Your task to perform on an android device: View the shopping cart on amazon.com. Add bose soundlink to the cart on amazon.com Image 0: 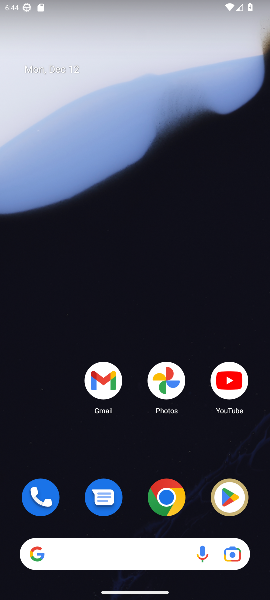
Step 0: press home button
Your task to perform on an android device: View the shopping cart on amazon.com. Add bose soundlink to the cart on amazon.com Image 1: 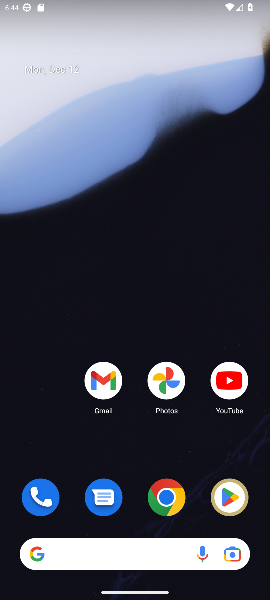
Step 1: drag from (72, 434) to (68, 58)
Your task to perform on an android device: View the shopping cart on amazon.com. Add bose soundlink to the cart on amazon.com Image 2: 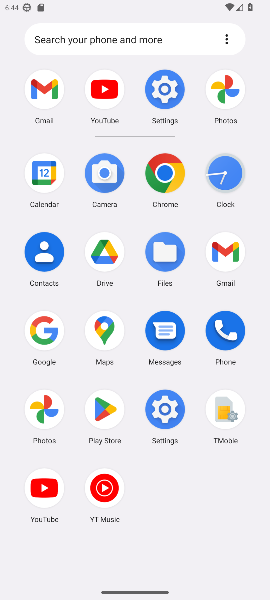
Step 2: click (40, 326)
Your task to perform on an android device: View the shopping cart on amazon.com. Add bose soundlink to the cart on amazon.com Image 3: 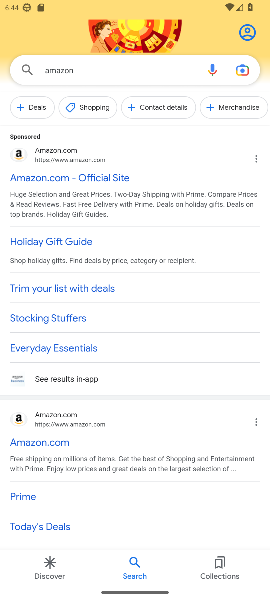
Step 3: click (123, 70)
Your task to perform on an android device: View the shopping cart on amazon.com. Add bose soundlink to the cart on amazon.com Image 4: 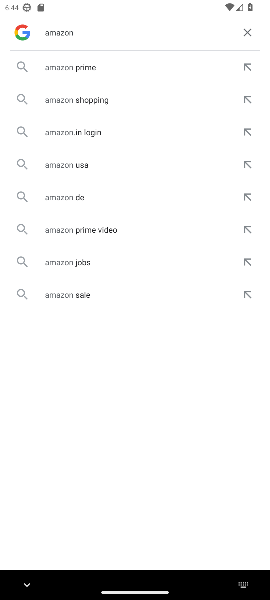
Step 4: click (247, 28)
Your task to perform on an android device: View the shopping cart on amazon.com. Add bose soundlink to the cart on amazon.com Image 5: 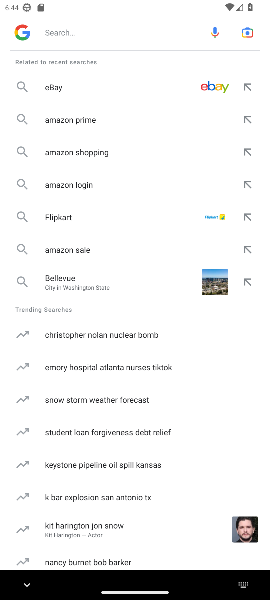
Step 5: type "amazon.com"
Your task to perform on an android device: View the shopping cart on amazon.com. Add bose soundlink to the cart on amazon.com Image 6: 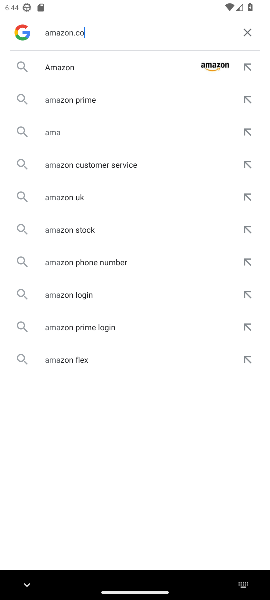
Step 6: press enter
Your task to perform on an android device: View the shopping cart on amazon.com. Add bose soundlink to the cart on amazon.com Image 7: 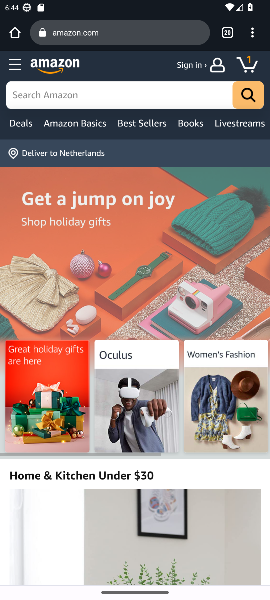
Step 7: click (246, 69)
Your task to perform on an android device: View the shopping cart on amazon.com. Add bose soundlink to the cart on amazon.com Image 8: 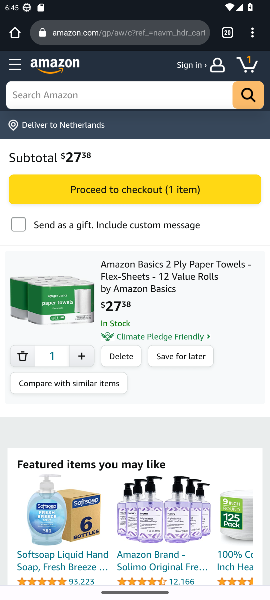
Step 8: click (88, 93)
Your task to perform on an android device: View the shopping cart on amazon.com. Add bose soundlink to the cart on amazon.com Image 9: 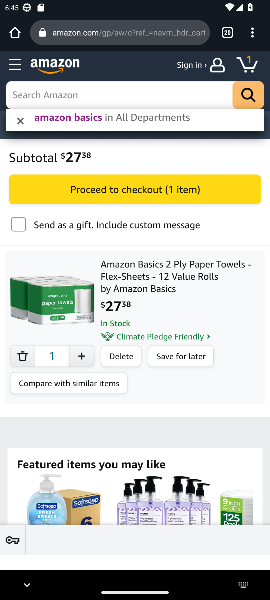
Step 9: type "bose soundlink"
Your task to perform on an android device: View the shopping cart on amazon.com. Add bose soundlink to the cart on amazon.com Image 10: 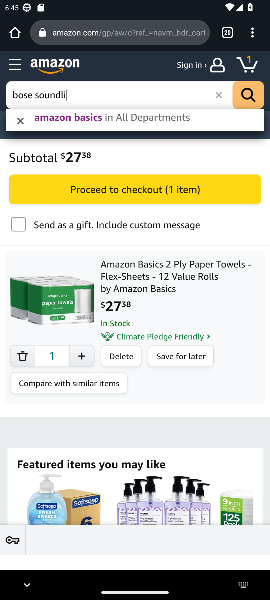
Step 10: press enter
Your task to perform on an android device: View the shopping cart on amazon.com. Add bose soundlink to the cart on amazon.com Image 11: 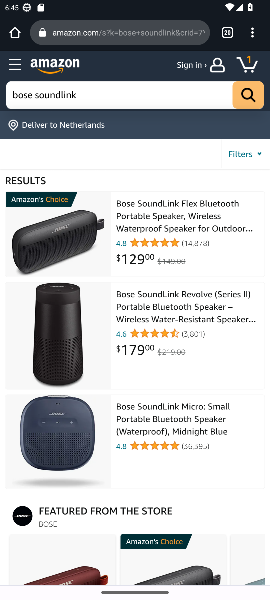
Step 11: click (179, 223)
Your task to perform on an android device: View the shopping cart on amazon.com. Add bose soundlink to the cart on amazon.com Image 12: 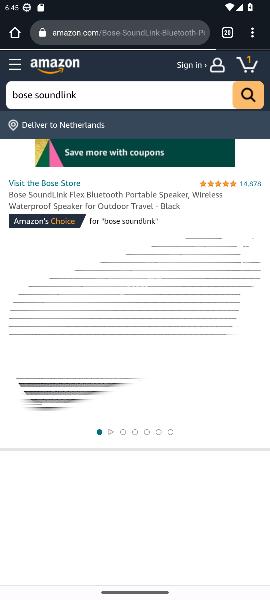
Step 12: task complete